Your task to perform on an android device: Search for sushi restaurants on Maps Image 0: 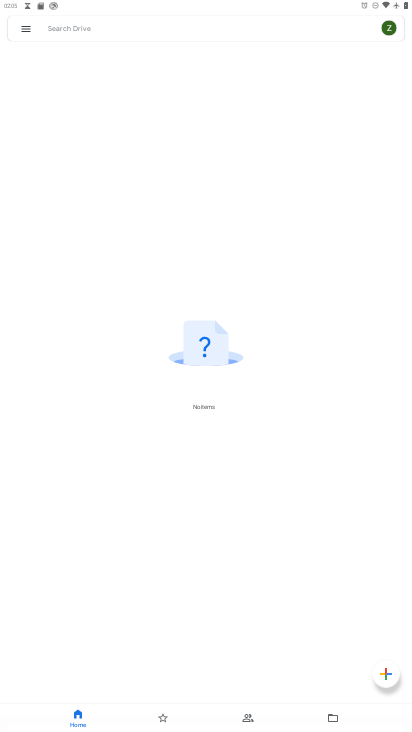
Step 0: press home button
Your task to perform on an android device: Search for sushi restaurants on Maps Image 1: 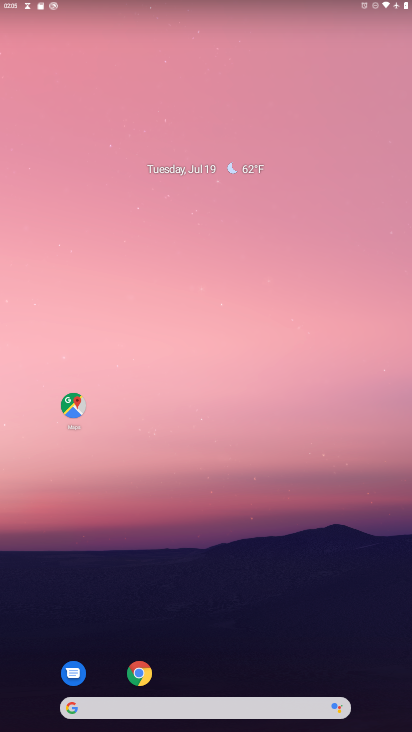
Step 1: drag from (288, 689) to (293, 234)
Your task to perform on an android device: Search for sushi restaurants on Maps Image 2: 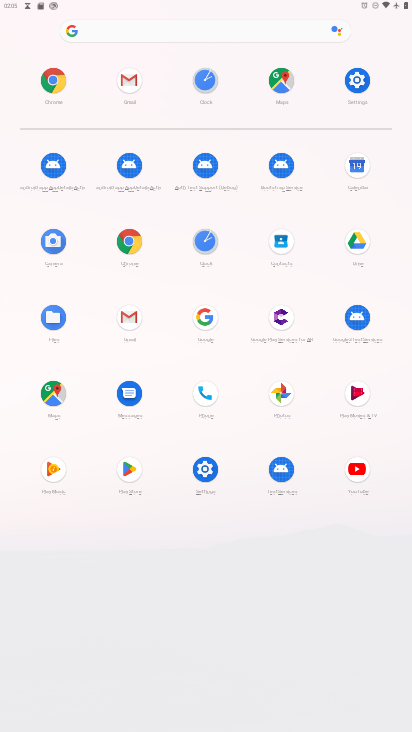
Step 2: click (49, 371)
Your task to perform on an android device: Search for sushi restaurants on Maps Image 3: 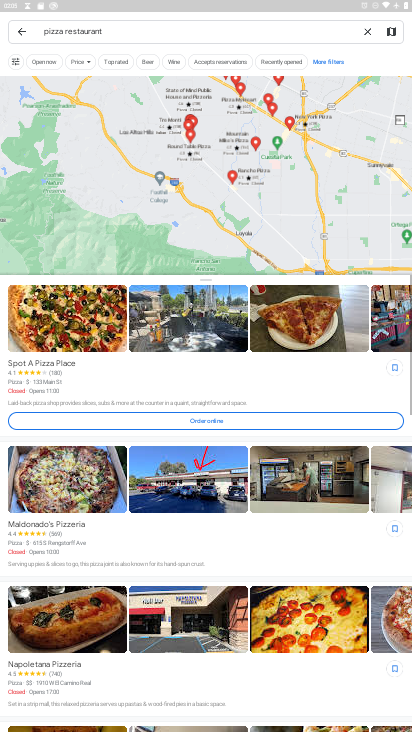
Step 3: click (368, 37)
Your task to perform on an android device: Search for sushi restaurants on Maps Image 4: 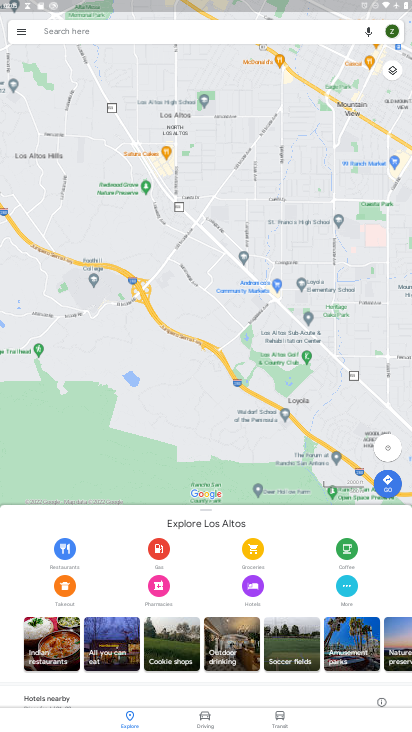
Step 4: click (115, 21)
Your task to perform on an android device: Search for sushi restaurants on Maps Image 5: 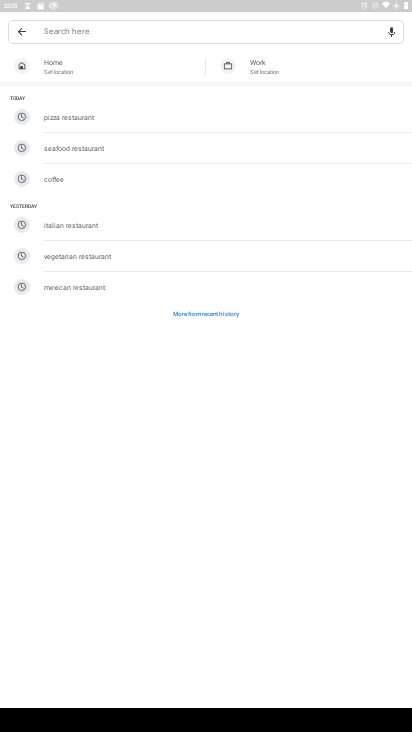
Step 5: click (217, 23)
Your task to perform on an android device: Search for sushi restaurants on Maps Image 6: 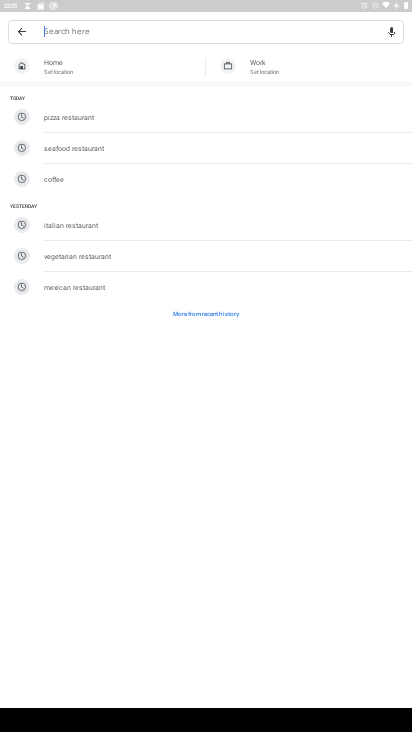
Step 6: type "sushi restaurants  "
Your task to perform on an android device: Search for sushi restaurants on Maps Image 7: 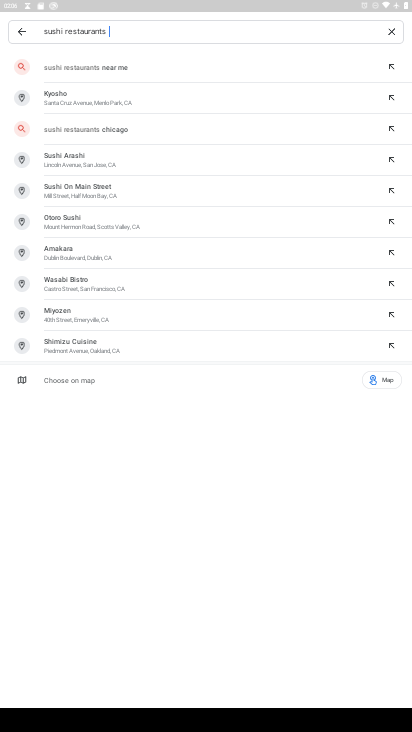
Step 7: click (93, 59)
Your task to perform on an android device: Search for sushi restaurants on Maps Image 8: 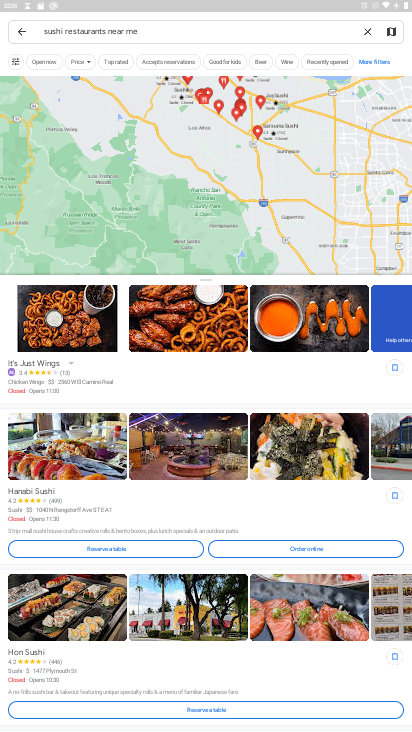
Step 8: task complete